Your task to perform on an android device: Open battery settings Image 0: 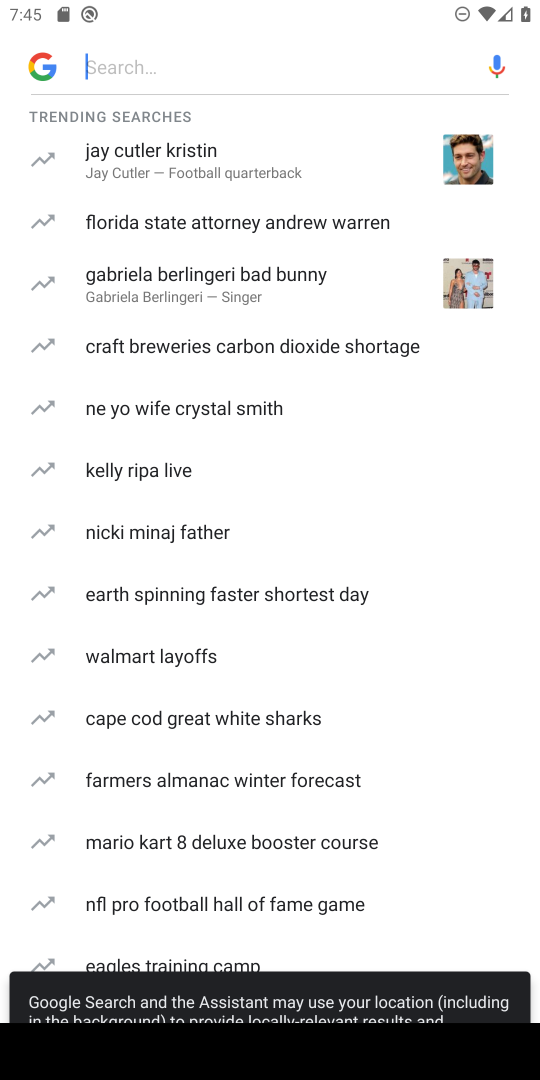
Step 0: press home button
Your task to perform on an android device: Open battery settings Image 1: 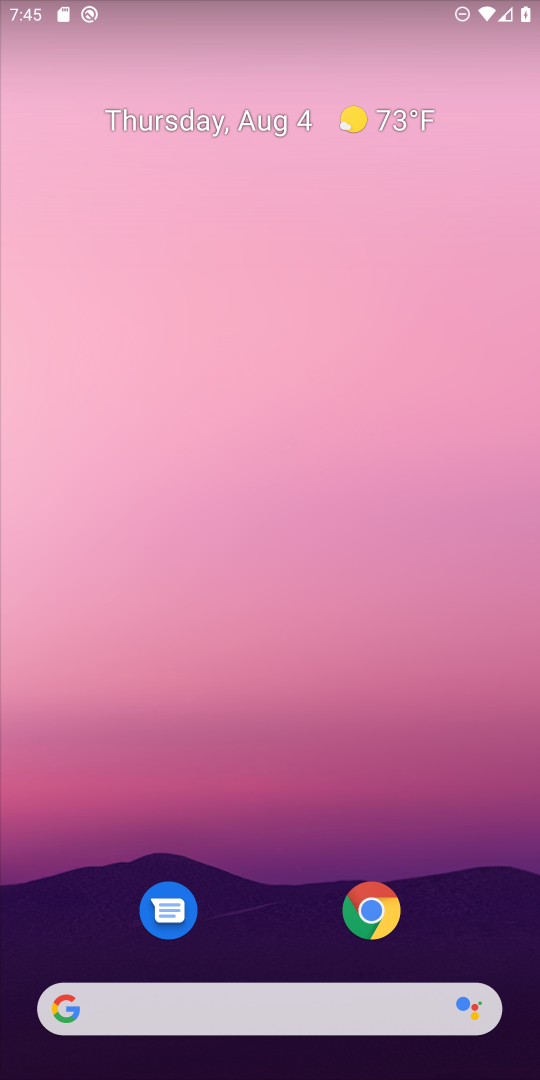
Step 1: drag from (286, 919) to (291, 231)
Your task to perform on an android device: Open battery settings Image 2: 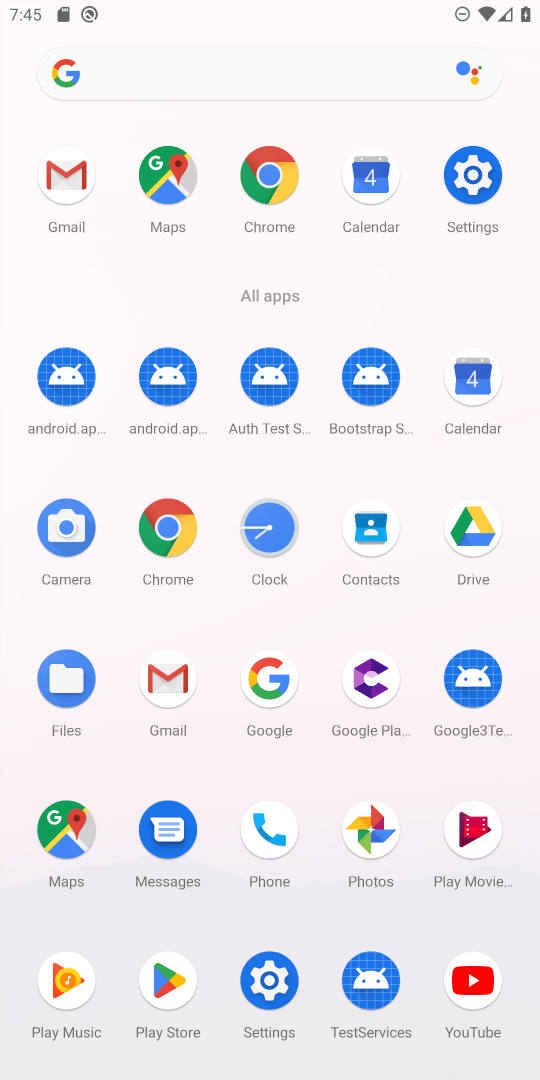
Step 2: click (461, 178)
Your task to perform on an android device: Open battery settings Image 3: 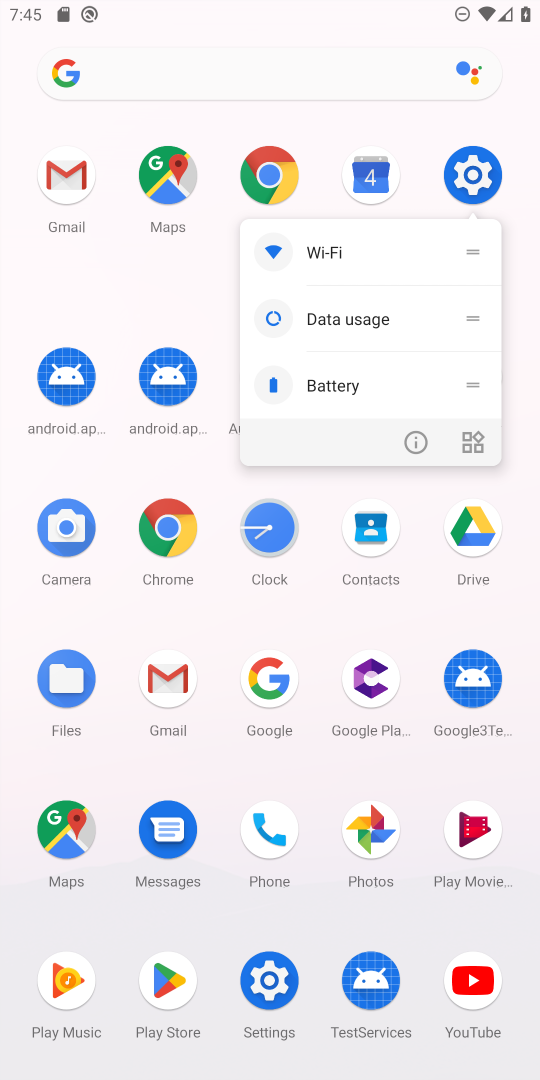
Step 3: click (276, 1001)
Your task to perform on an android device: Open battery settings Image 4: 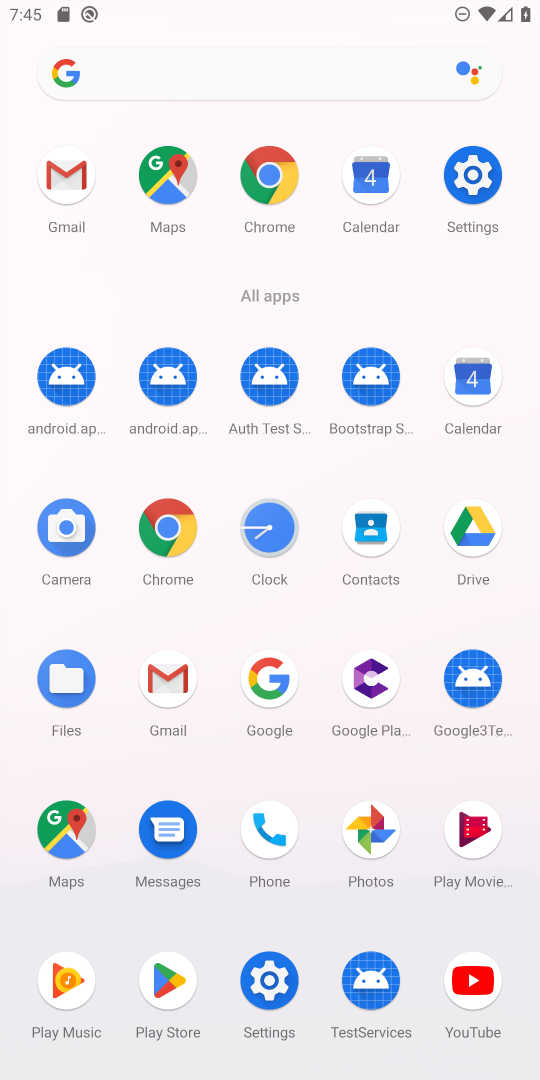
Step 4: click (267, 978)
Your task to perform on an android device: Open battery settings Image 5: 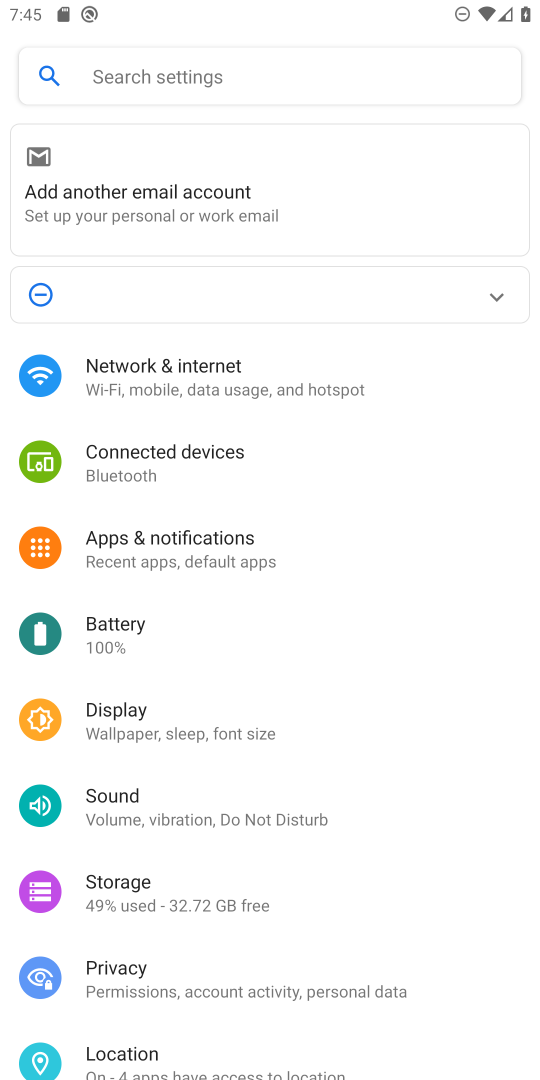
Step 5: drag from (267, 978) to (297, 396)
Your task to perform on an android device: Open battery settings Image 6: 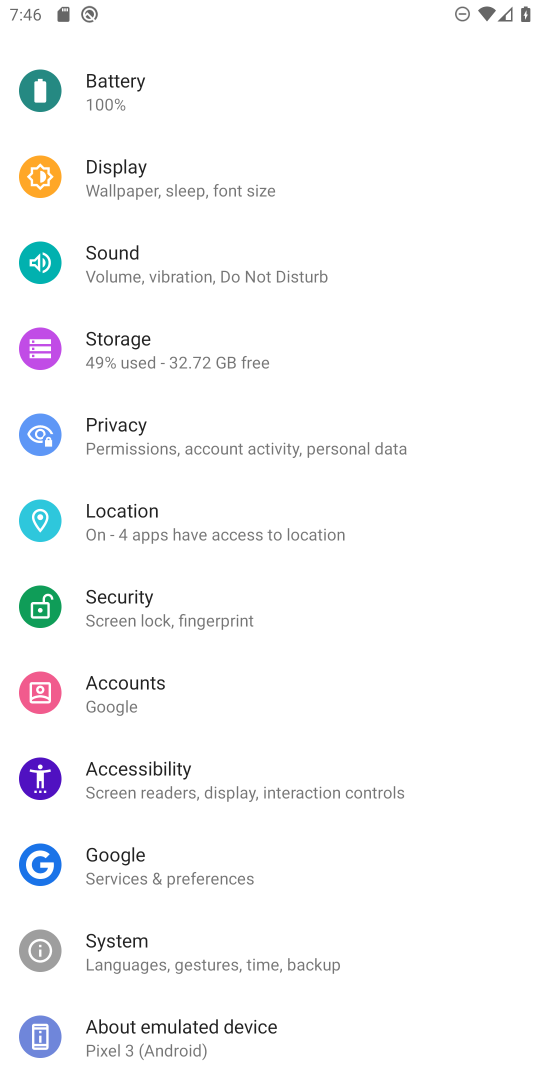
Step 6: click (127, 81)
Your task to perform on an android device: Open battery settings Image 7: 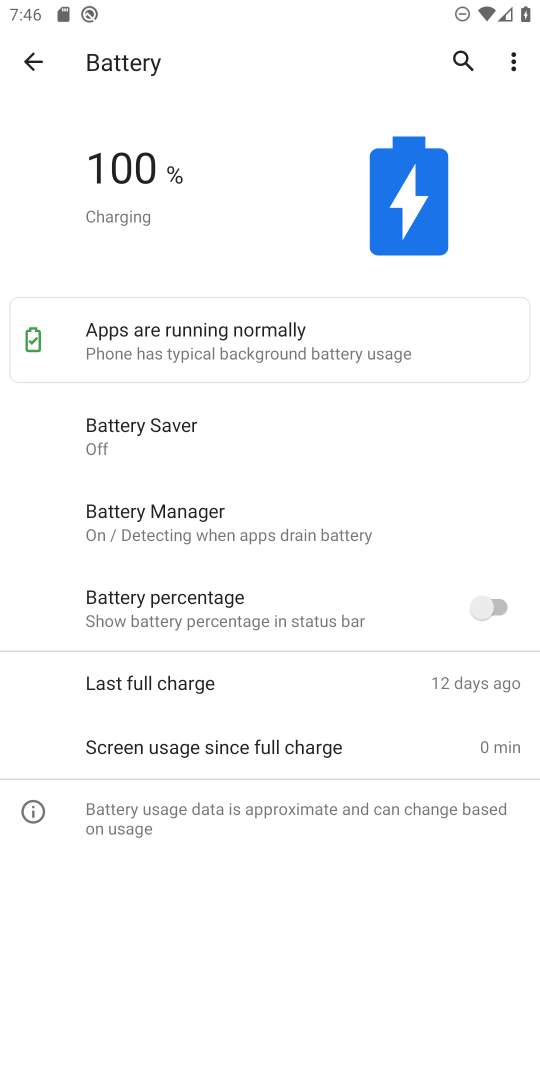
Step 7: task complete